Your task to perform on an android device: turn pop-ups off in chrome Image 0: 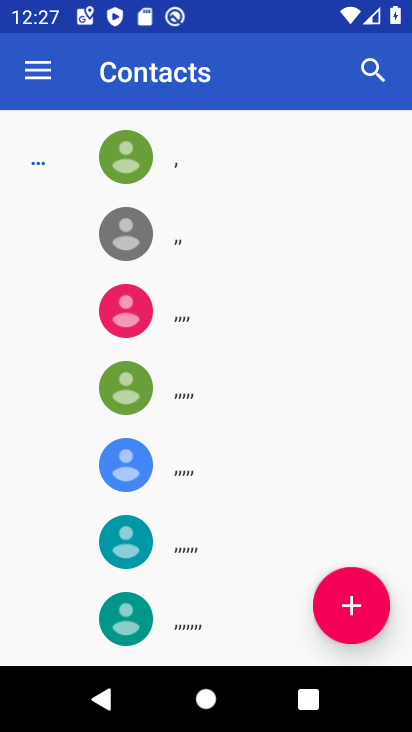
Step 0: press home button
Your task to perform on an android device: turn pop-ups off in chrome Image 1: 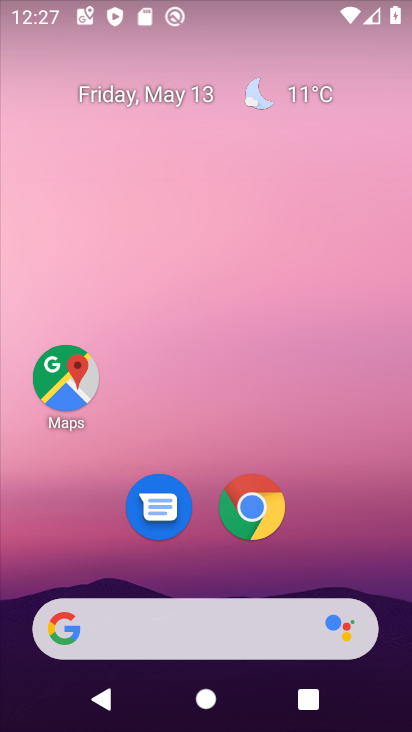
Step 1: drag from (190, 596) to (100, 33)
Your task to perform on an android device: turn pop-ups off in chrome Image 2: 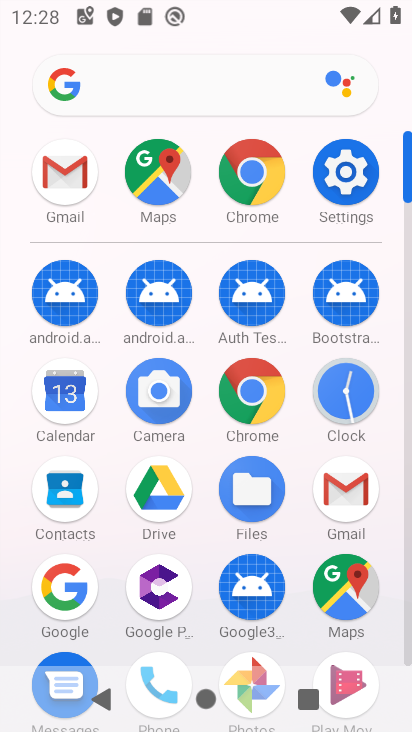
Step 2: click (341, 186)
Your task to perform on an android device: turn pop-ups off in chrome Image 3: 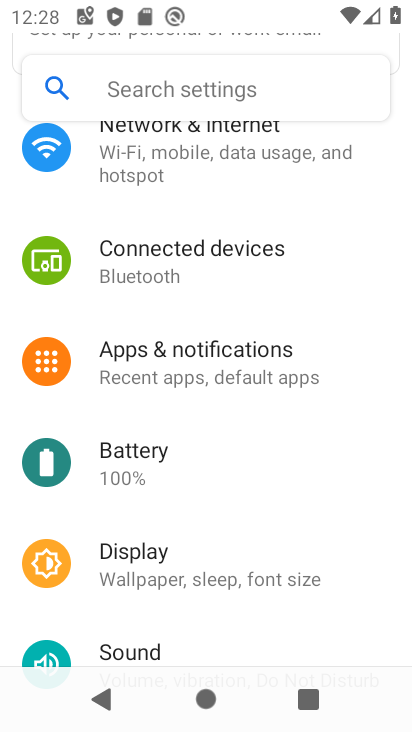
Step 3: press home button
Your task to perform on an android device: turn pop-ups off in chrome Image 4: 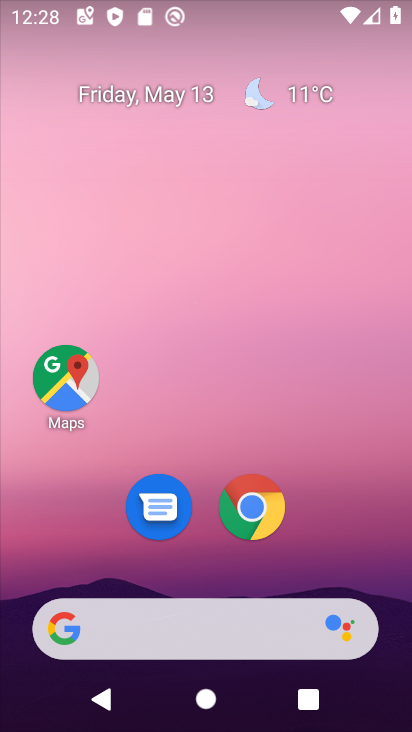
Step 4: click (261, 517)
Your task to perform on an android device: turn pop-ups off in chrome Image 5: 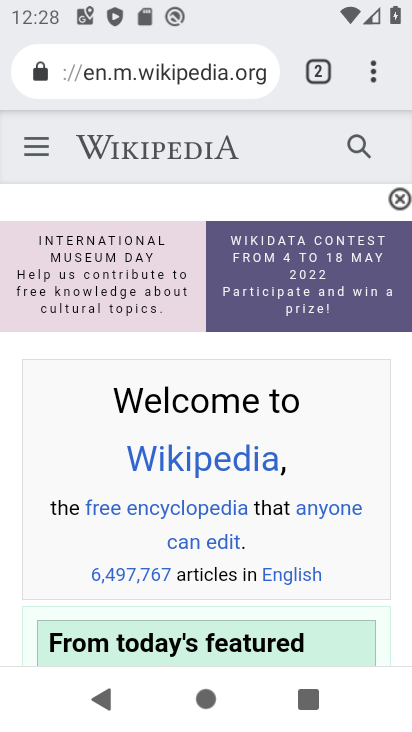
Step 5: drag from (373, 80) to (106, 513)
Your task to perform on an android device: turn pop-ups off in chrome Image 6: 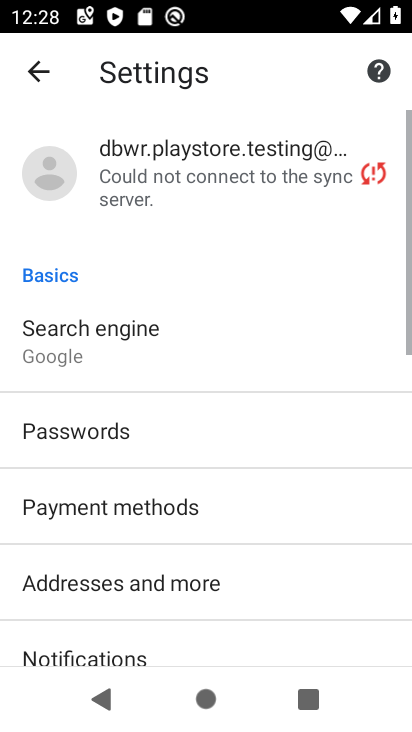
Step 6: drag from (147, 542) to (142, 166)
Your task to perform on an android device: turn pop-ups off in chrome Image 7: 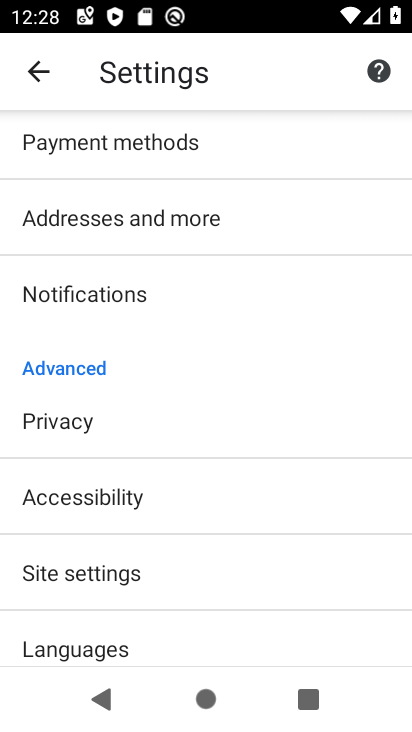
Step 7: click (65, 570)
Your task to perform on an android device: turn pop-ups off in chrome Image 8: 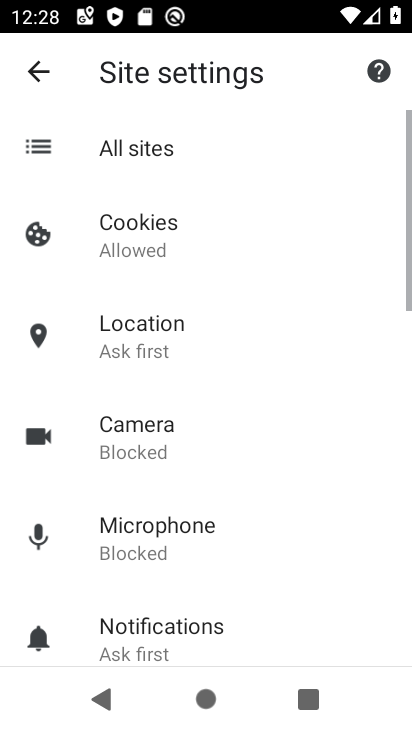
Step 8: drag from (107, 590) to (75, 201)
Your task to perform on an android device: turn pop-ups off in chrome Image 9: 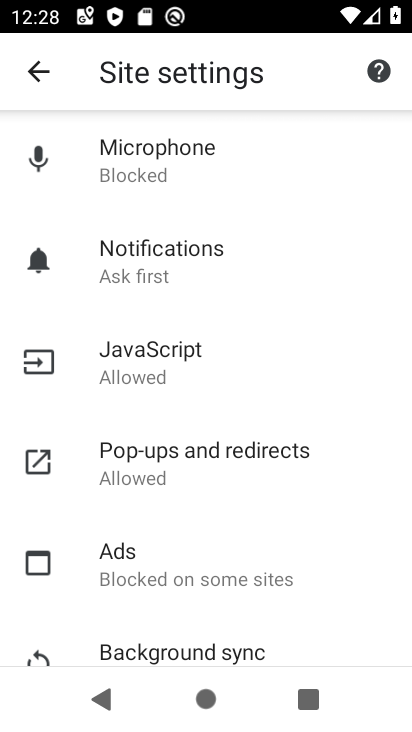
Step 9: click (141, 481)
Your task to perform on an android device: turn pop-ups off in chrome Image 10: 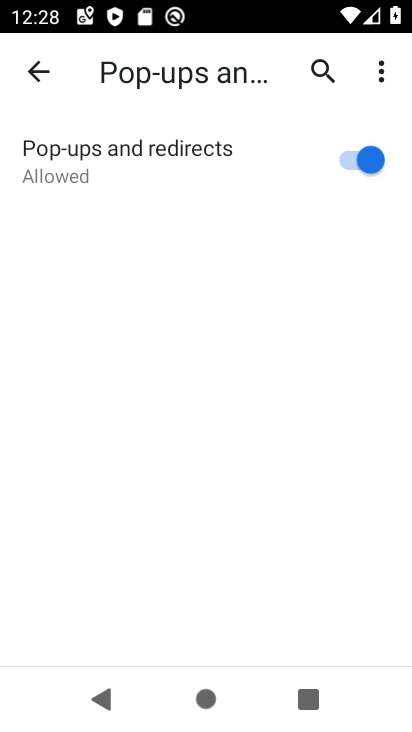
Step 10: click (347, 157)
Your task to perform on an android device: turn pop-ups off in chrome Image 11: 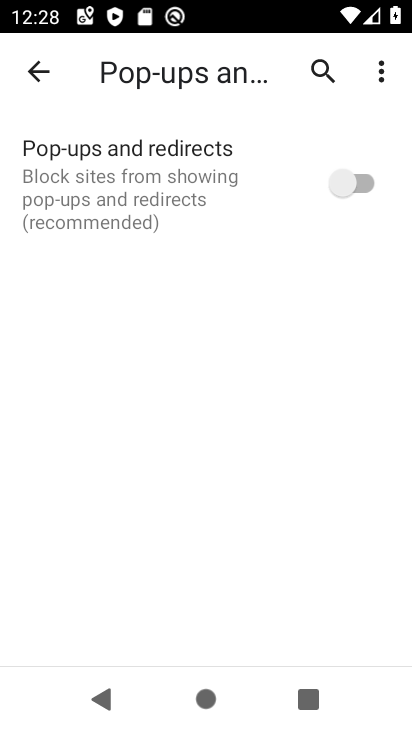
Step 11: task complete